Your task to perform on an android device: open app "Google Keep" (install if not already installed) Image 0: 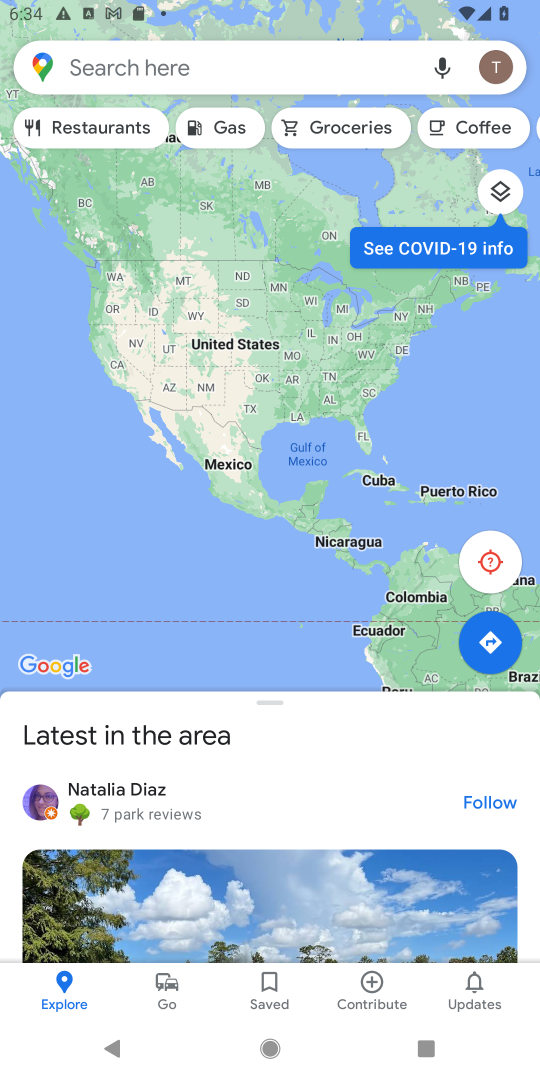
Step 0: press home button
Your task to perform on an android device: open app "Google Keep" (install if not already installed) Image 1: 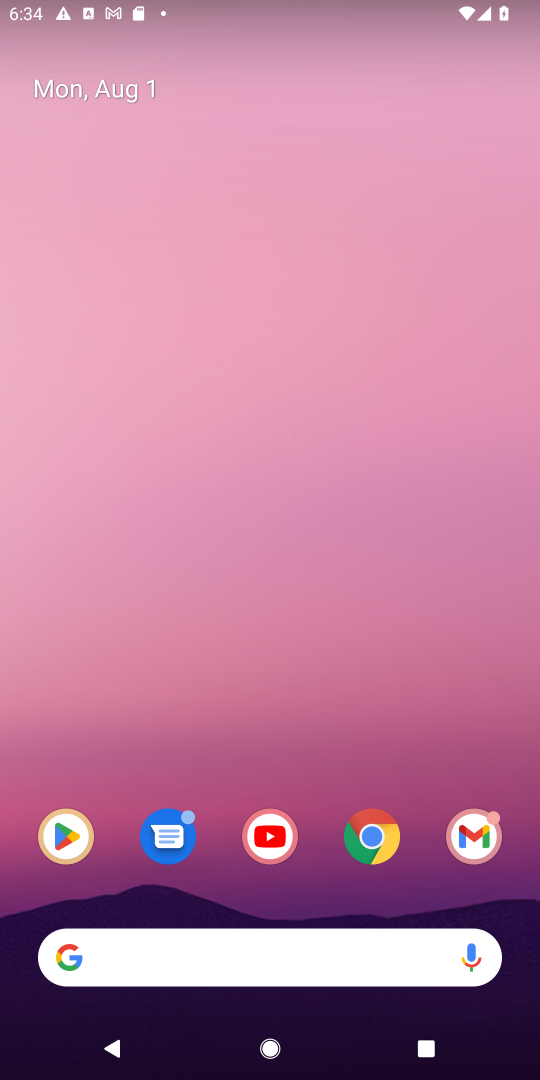
Step 1: click (69, 829)
Your task to perform on an android device: open app "Google Keep" (install if not already installed) Image 2: 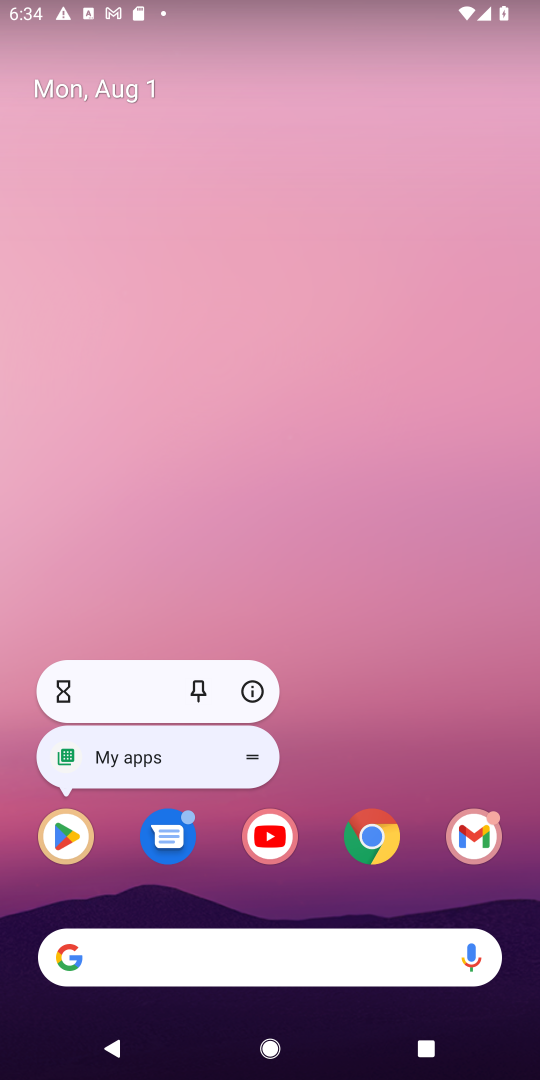
Step 2: click (60, 833)
Your task to perform on an android device: open app "Google Keep" (install if not already installed) Image 3: 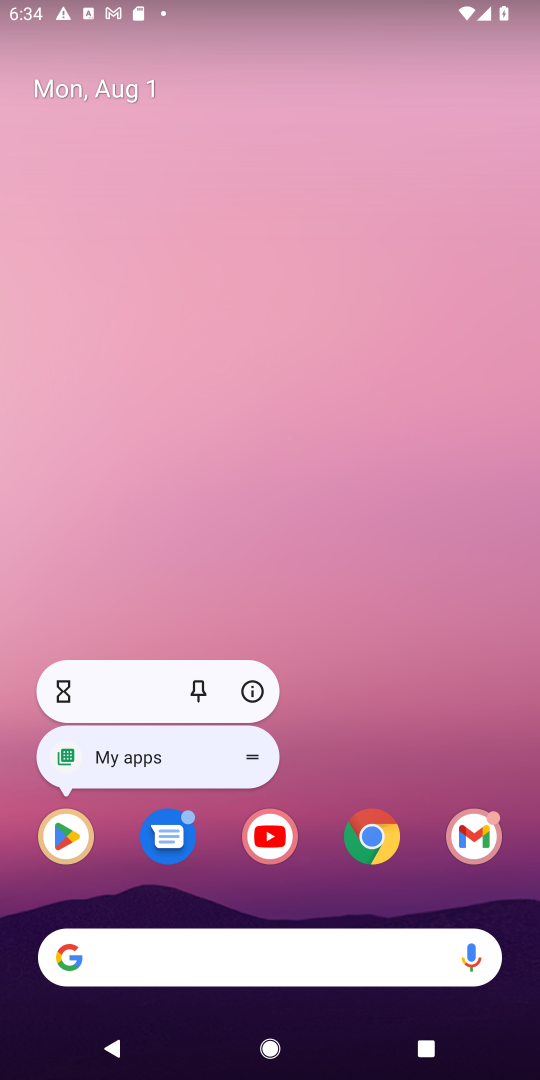
Step 3: click (60, 833)
Your task to perform on an android device: open app "Google Keep" (install if not already installed) Image 4: 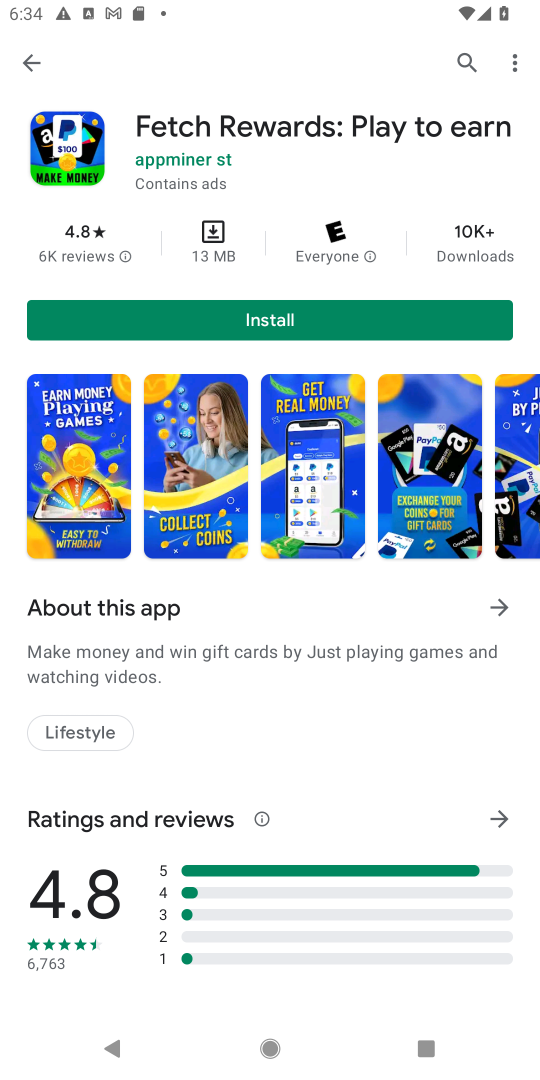
Step 4: click (460, 59)
Your task to perform on an android device: open app "Google Keep" (install if not already installed) Image 5: 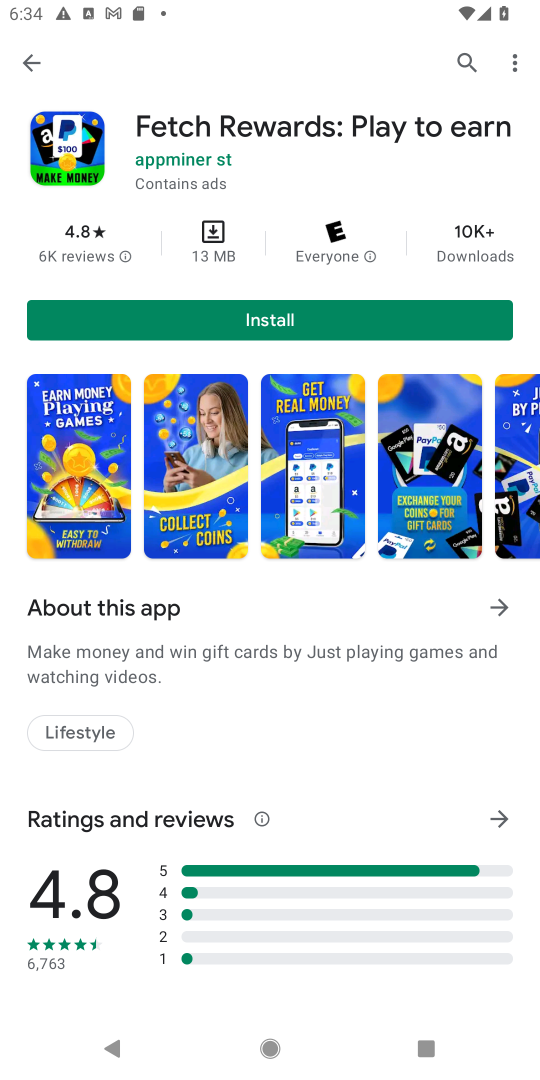
Step 5: click (464, 52)
Your task to perform on an android device: open app "Google Keep" (install if not already installed) Image 6: 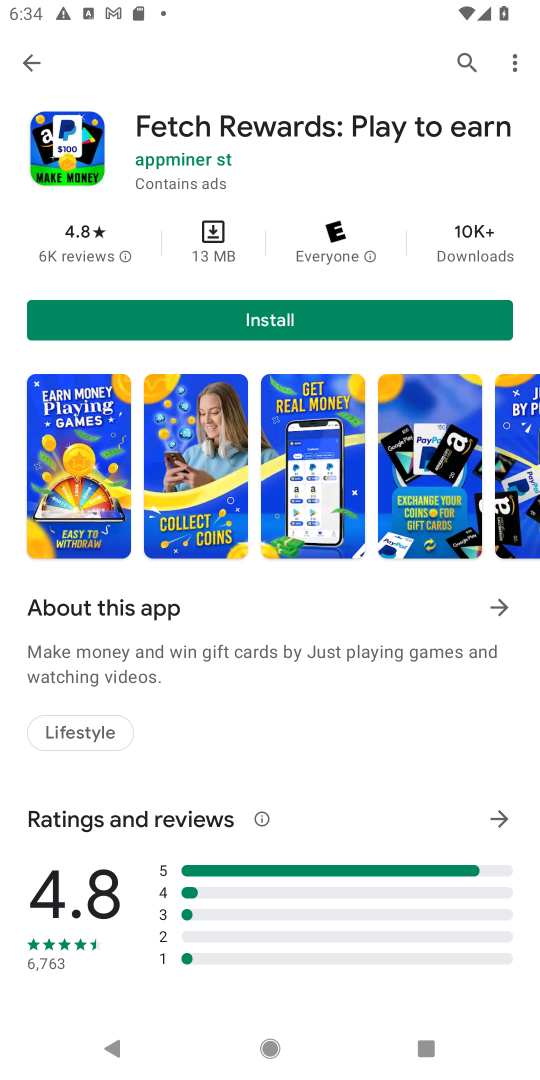
Step 6: click (464, 58)
Your task to perform on an android device: open app "Google Keep" (install if not already installed) Image 7: 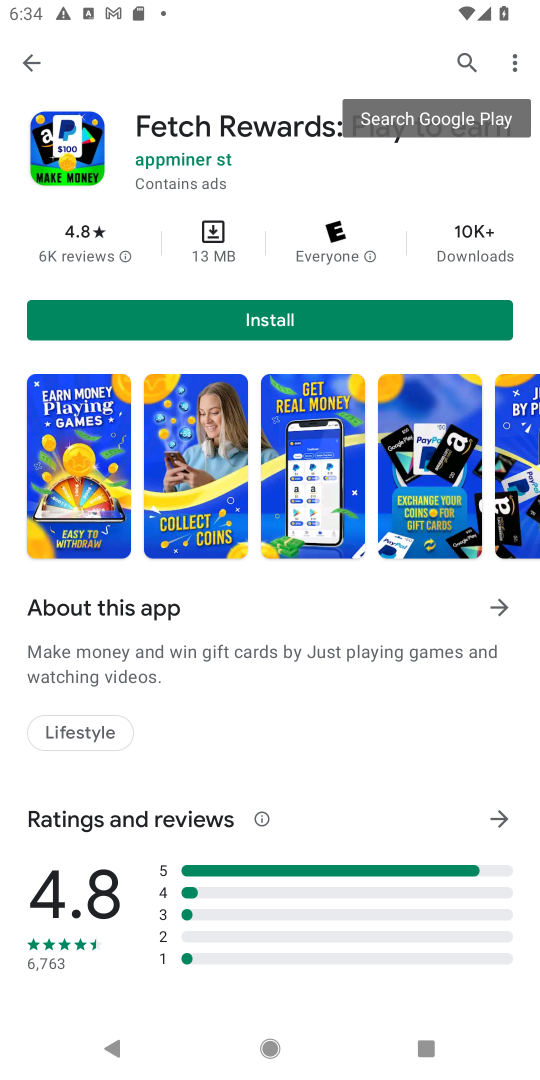
Step 7: click (413, 51)
Your task to perform on an android device: open app "Google Keep" (install if not already installed) Image 8: 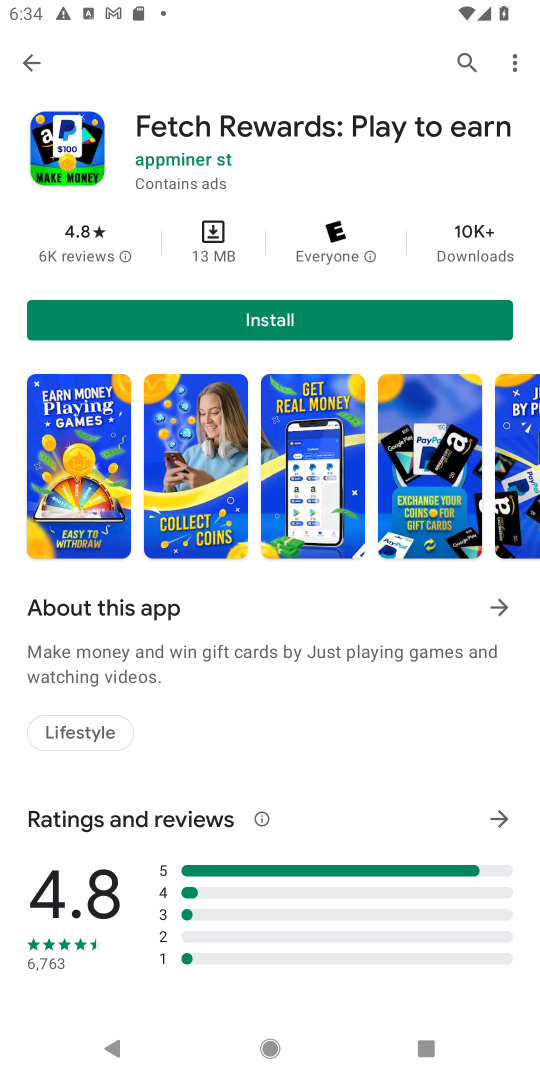
Step 8: click (462, 58)
Your task to perform on an android device: open app "Google Keep" (install if not already installed) Image 9: 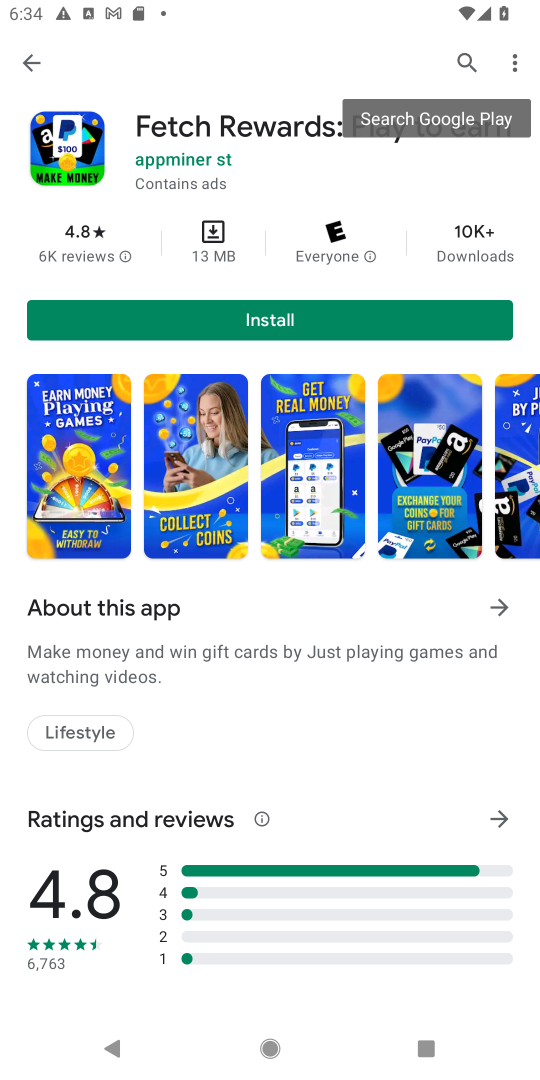
Step 9: click (33, 65)
Your task to perform on an android device: open app "Google Keep" (install if not already installed) Image 10: 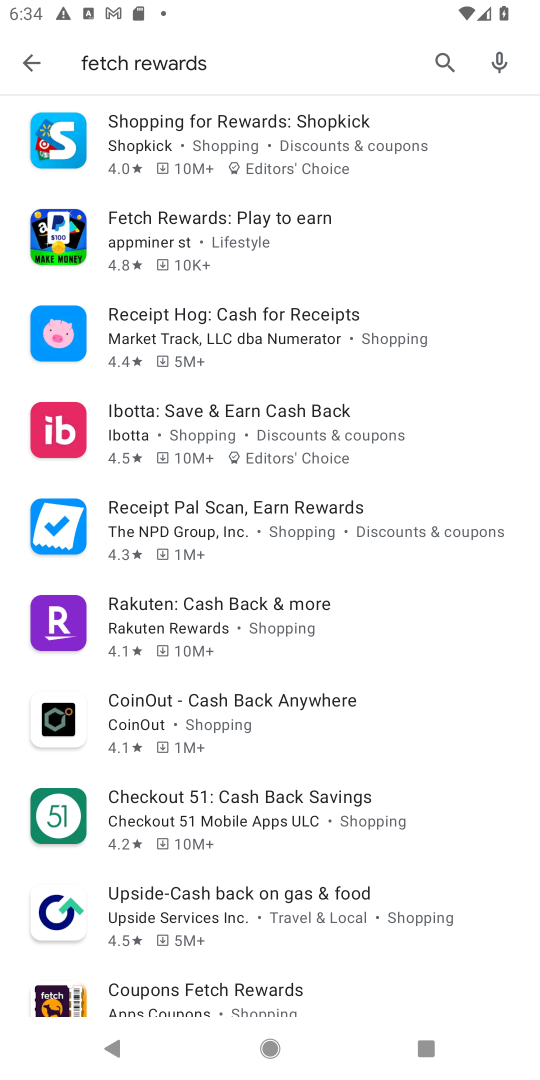
Step 10: click (442, 59)
Your task to perform on an android device: open app "Google Keep" (install if not already installed) Image 11: 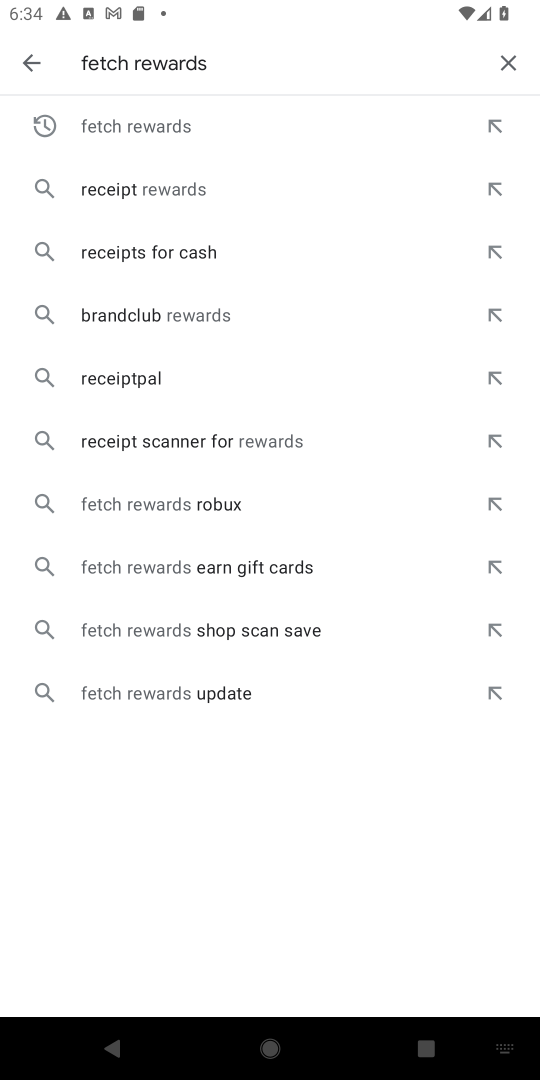
Step 11: click (502, 58)
Your task to perform on an android device: open app "Google Keep" (install if not already installed) Image 12: 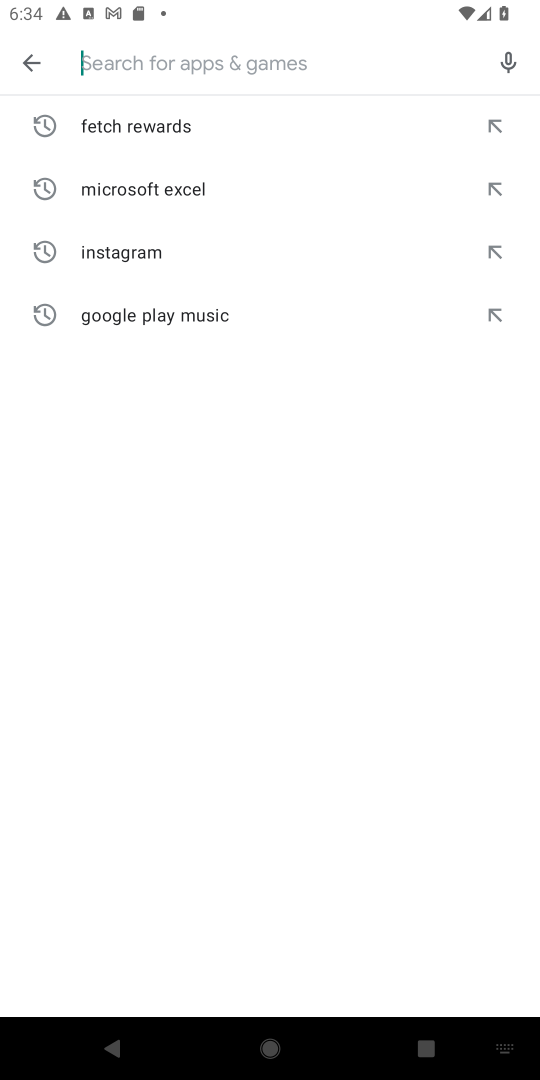
Step 12: type "Google Keep"
Your task to perform on an android device: open app "Google Keep" (install if not already installed) Image 13: 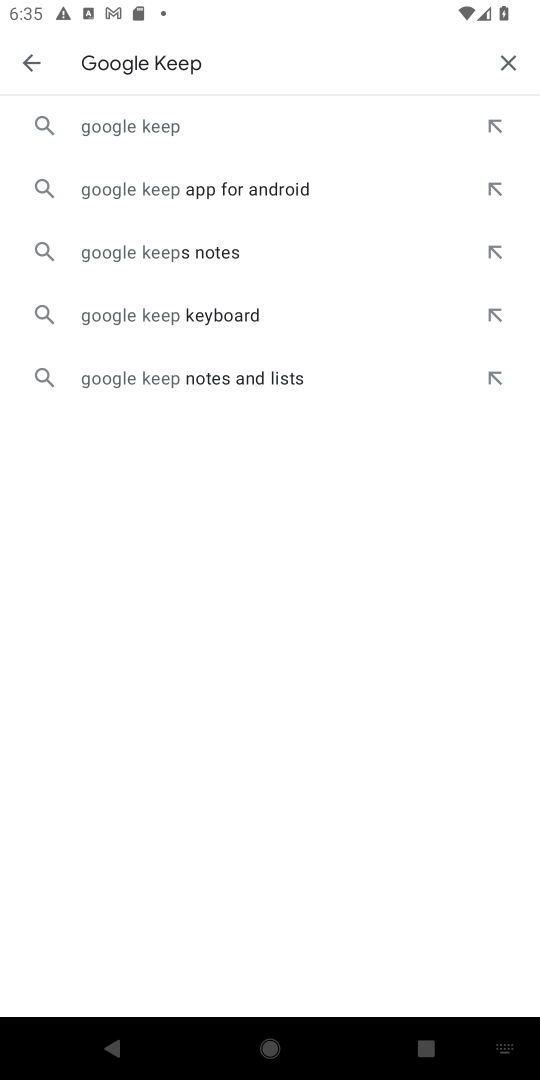
Step 13: click (134, 125)
Your task to perform on an android device: open app "Google Keep" (install if not already installed) Image 14: 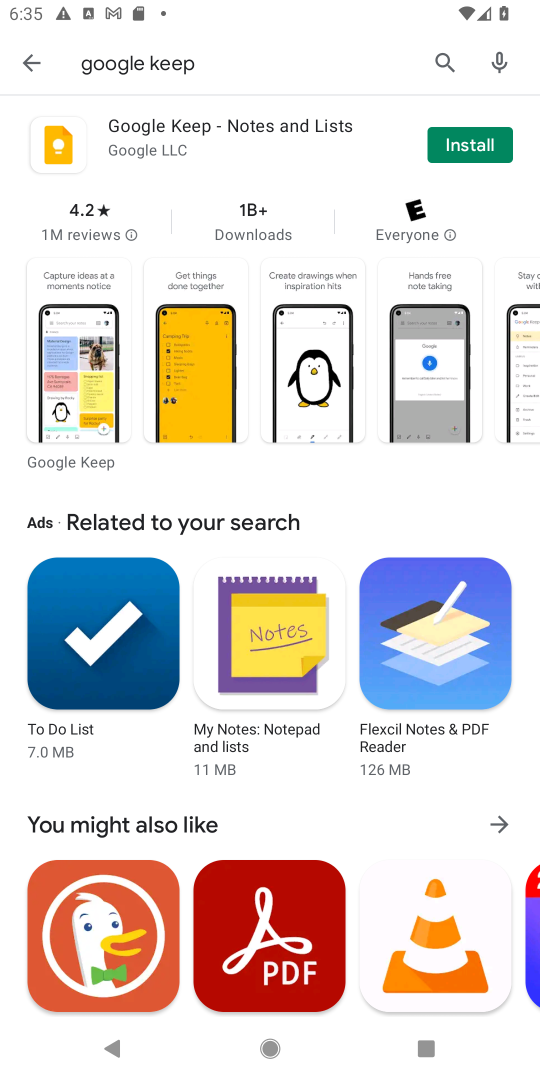
Step 14: click (484, 138)
Your task to perform on an android device: open app "Google Keep" (install if not already installed) Image 15: 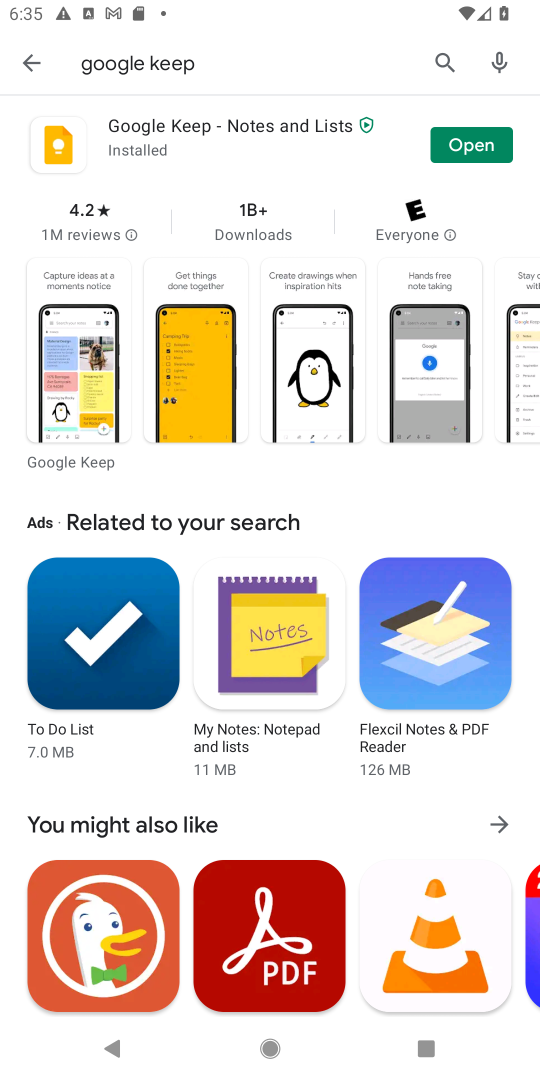
Step 15: click (446, 141)
Your task to perform on an android device: open app "Google Keep" (install if not already installed) Image 16: 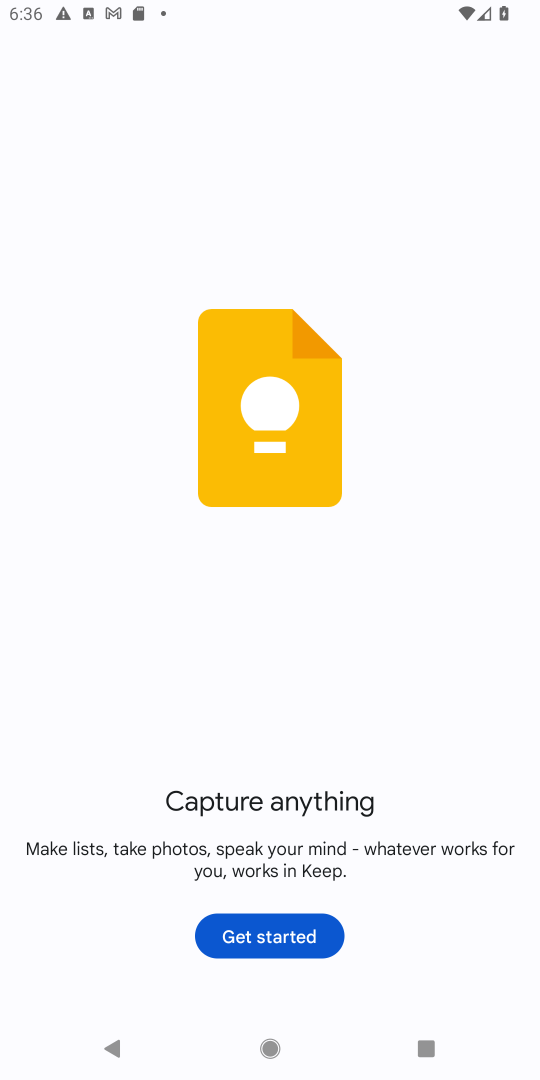
Step 16: task complete